Your task to perform on an android device: Open my contact list Image 0: 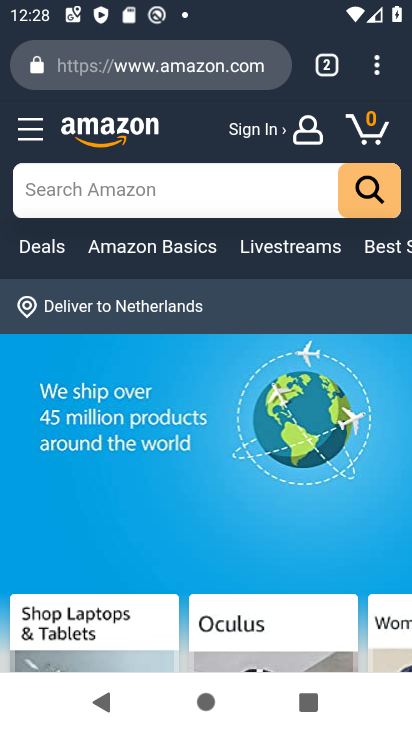
Step 0: press home button
Your task to perform on an android device: Open my contact list Image 1: 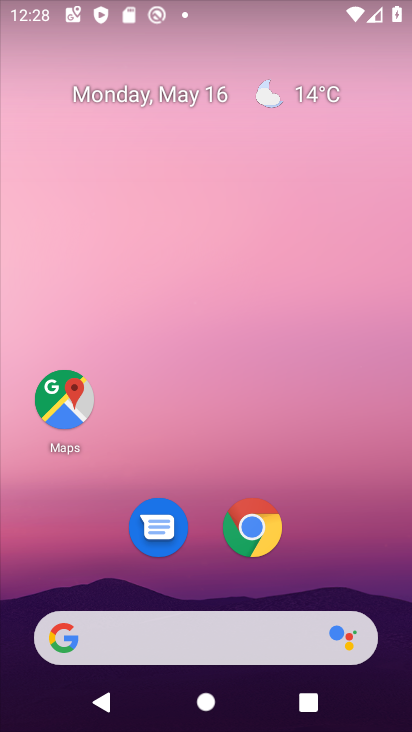
Step 1: drag from (215, 610) to (269, 7)
Your task to perform on an android device: Open my contact list Image 2: 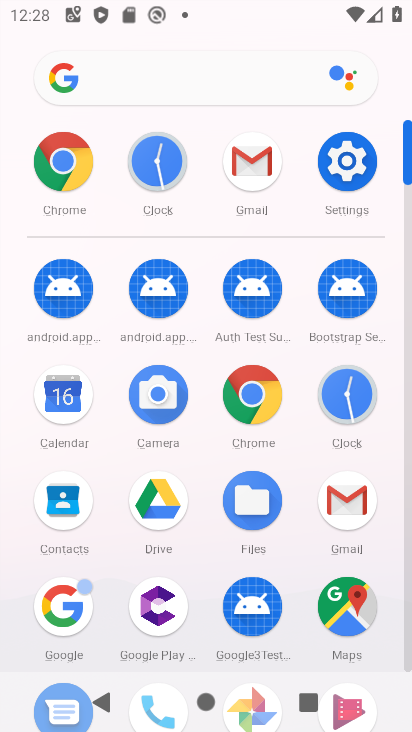
Step 2: click (72, 508)
Your task to perform on an android device: Open my contact list Image 3: 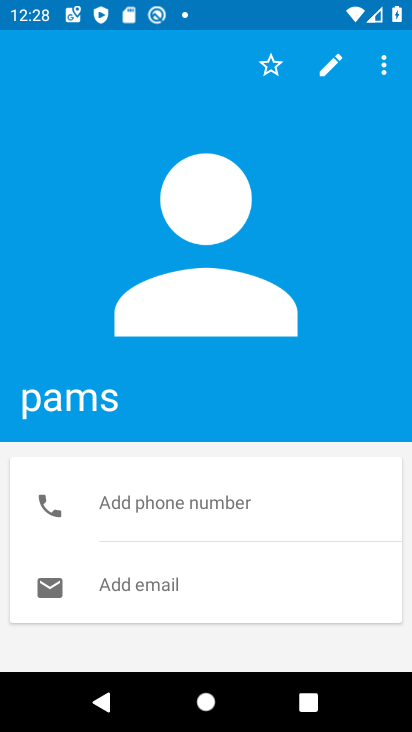
Step 3: task complete